Your task to perform on an android device: toggle sleep mode Image 0: 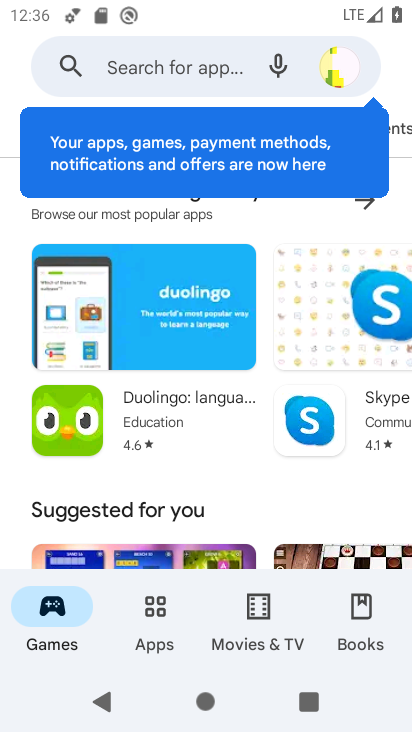
Step 0: task impossible